Your task to perform on an android device: Open the calendar and show me this week's events Image 0: 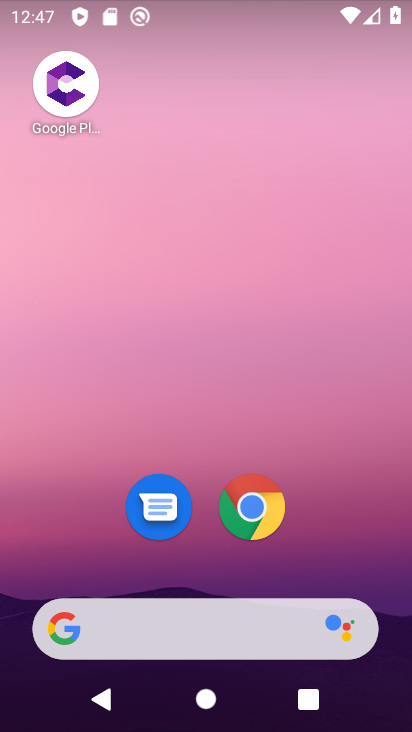
Step 0: drag from (227, 495) to (267, 164)
Your task to perform on an android device: Open the calendar and show me this week's events Image 1: 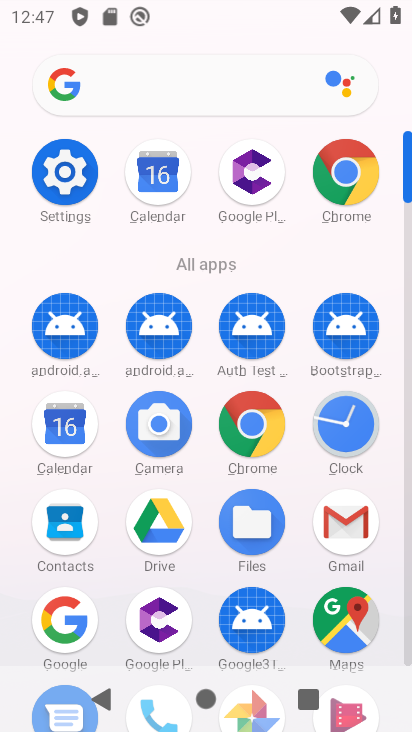
Step 1: click (42, 415)
Your task to perform on an android device: Open the calendar and show me this week's events Image 2: 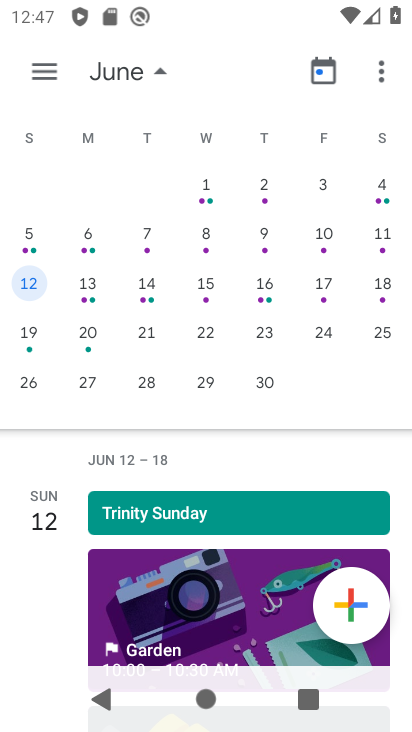
Step 2: drag from (284, 304) to (85, 297)
Your task to perform on an android device: Open the calendar and show me this week's events Image 3: 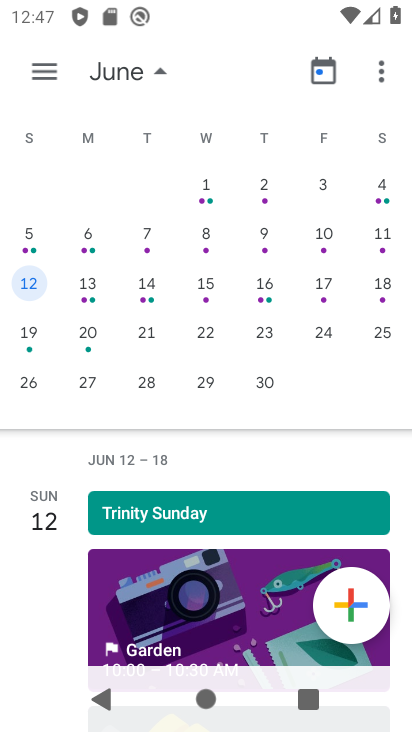
Step 3: drag from (117, 268) to (360, 294)
Your task to perform on an android device: Open the calendar and show me this week's events Image 4: 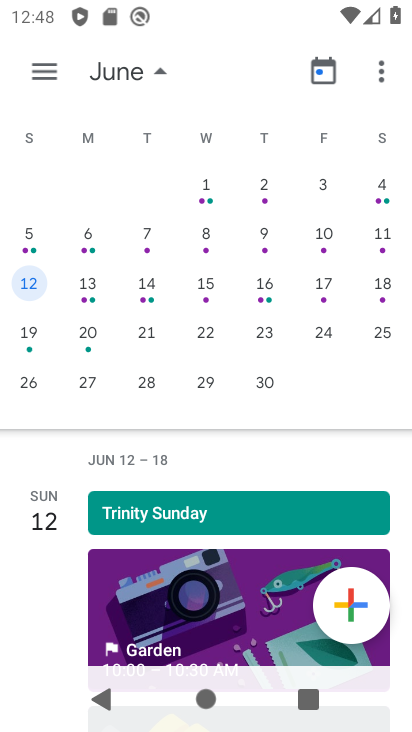
Step 4: click (88, 273)
Your task to perform on an android device: Open the calendar and show me this week's events Image 5: 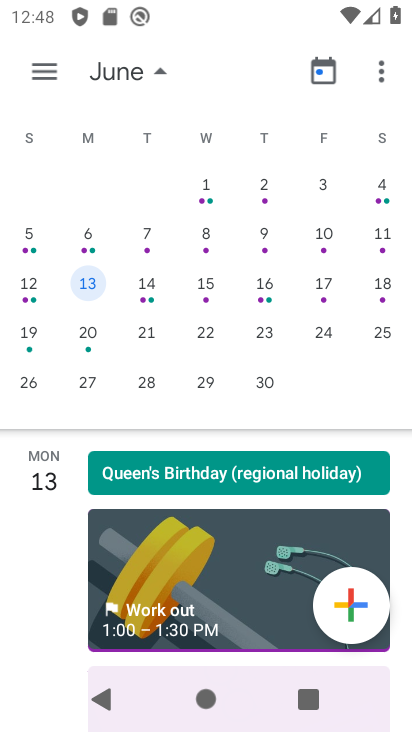
Step 5: click (147, 284)
Your task to perform on an android device: Open the calendar and show me this week's events Image 6: 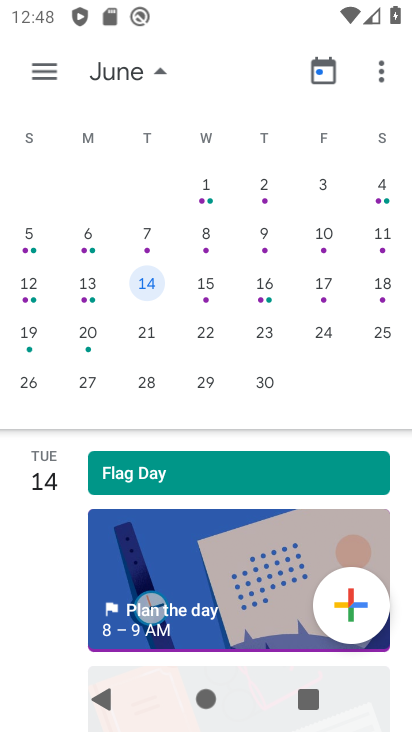
Step 6: click (266, 299)
Your task to perform on an android device: Open the calendar and show me this week's events Image 7: 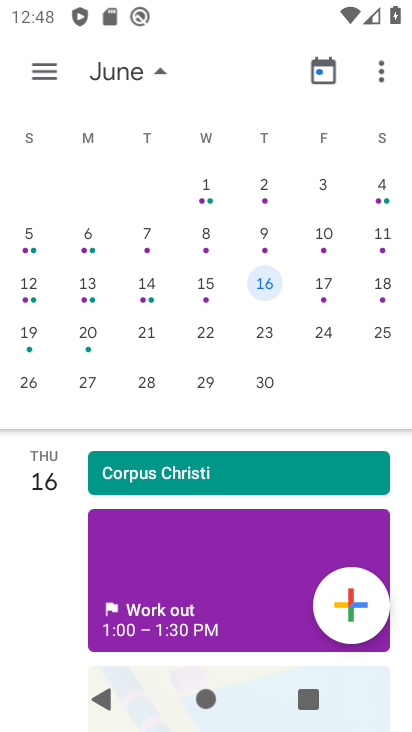
Step 7: task complete